Your task to perform on an android device: Open Google Chrome and open the bookmarks view Image 0: 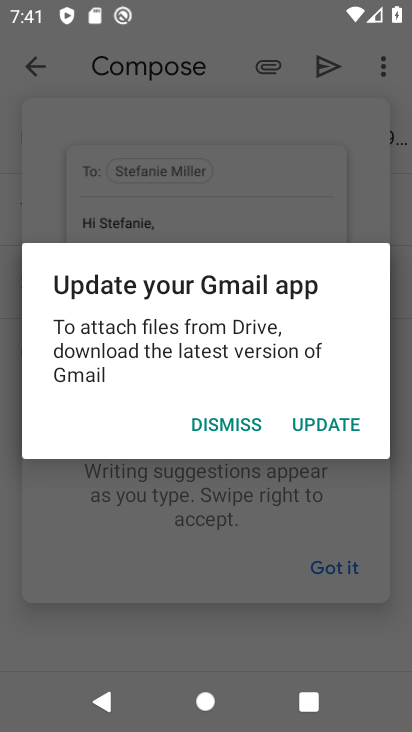
Step 0: press home button
Your task to perform on an android device: Open Google Chrome and open the bookmarks view Image 1: 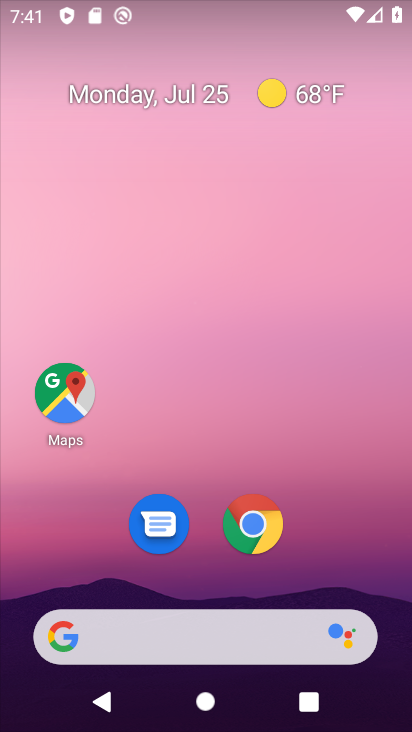
Step 1: click (271, 513)
Your task to perform on an android device: Open Google Chrome and open the bookmarks view Image 2: 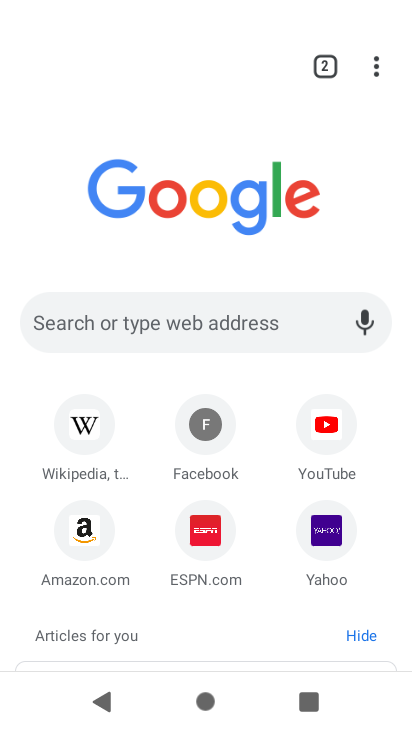
Step 2: click (374, 75)
Your task to perform on an android device: Open Google Chrome and open the bookmarks view Image 3: 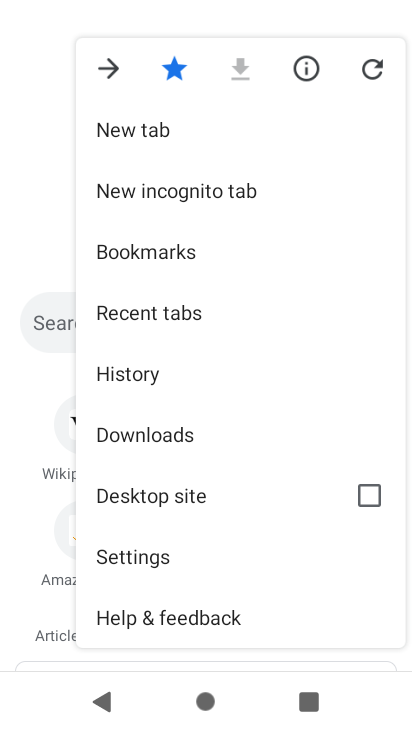
Step 3: click (193, 250)
Your task to perform on an android device: Open Google Chrome and open the bookmarks view Image 4: 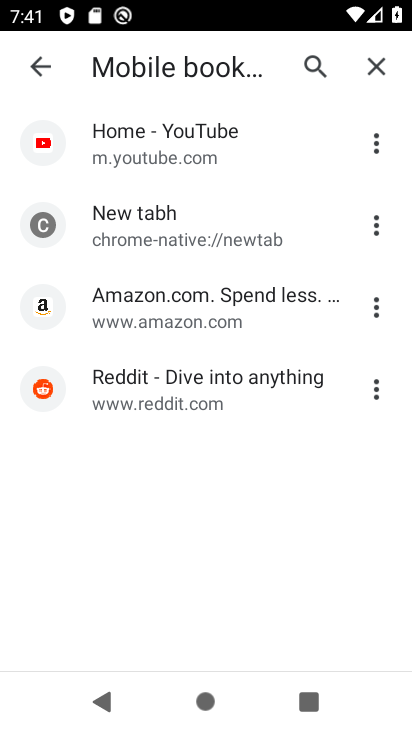
Step 4: task complete